Your task to perform on an android device: turn on priority inbox in the gmail app Image 0: 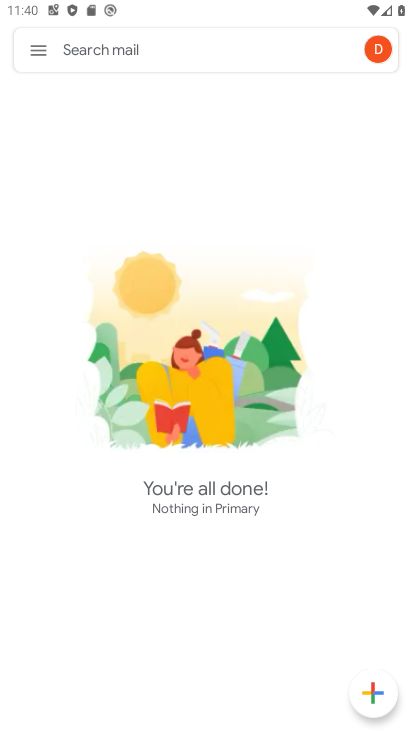
Step 0: click (37, 46)
Your task to perform on an android device: turn on priority inbox in the gmail app Image 1: 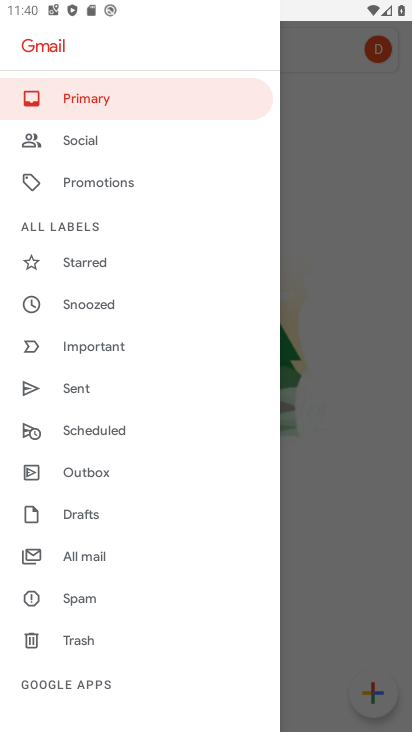
Step 1: drag from (119, 536) to (114, 443)
Your task to perform on an android device: turn on priority inbox in the gmail app Image 2: 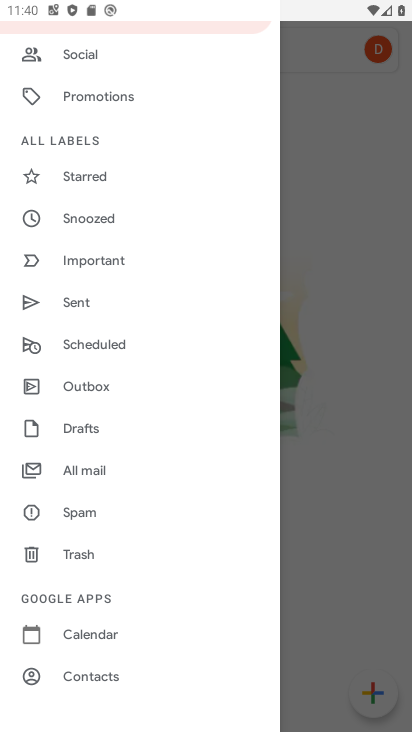
Step 2: drag from (103, 553) to (134, 443)
Your task to perform on an android device: turn on priority inbox in the gmail app Image 3: 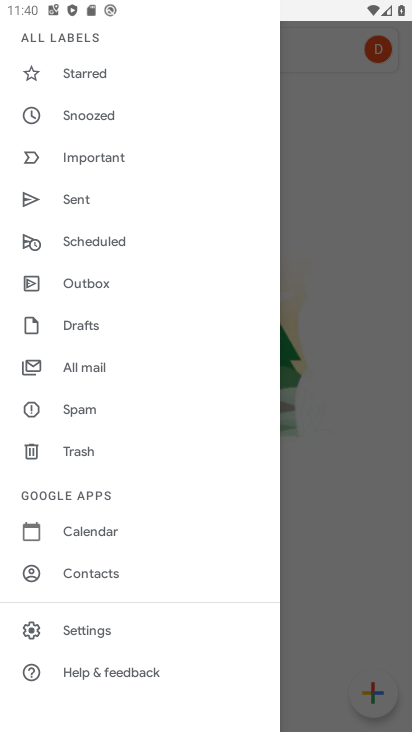
Step 3: click (88, 630)
Your task to perform on an android device: turn on priority inbox in the gmail app Image 4: 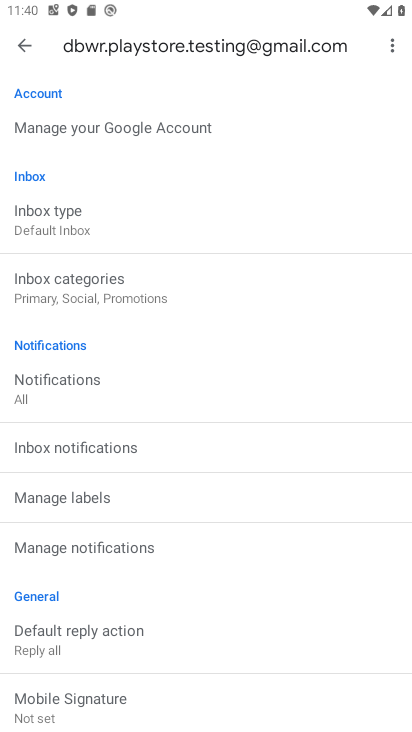
Step 4: click (66, 235)
Your task to perform on an android device: turn on priority inbox in the gmail app Image 5: 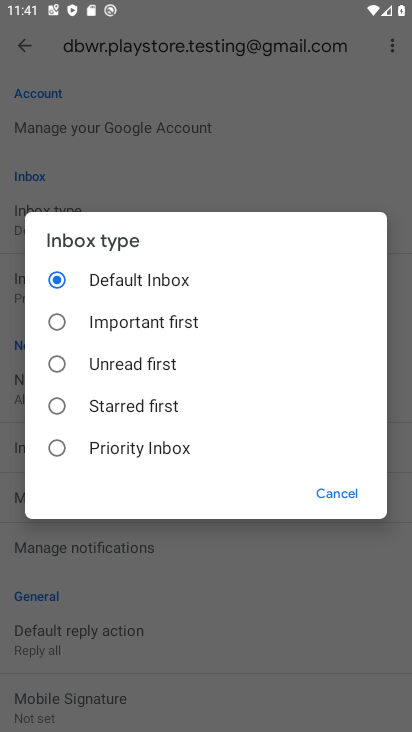
Step 5: click (58, 448)
Your task to perform on an android device: turn on priority inbox in the gmail app Image 6: 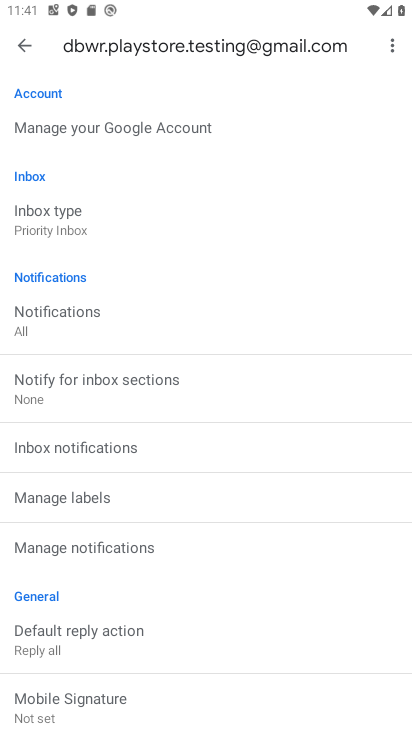
Step 6: task complete